Your task to perform on an android device: Go to Android settings Image 0: 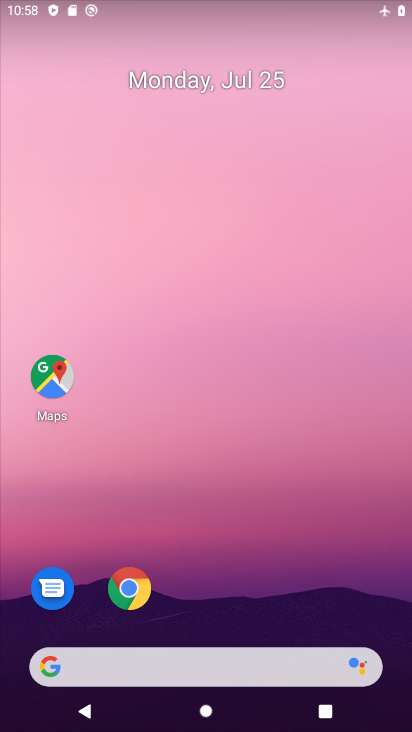
Step 0: drag from (247, 309) to (251, 194)
Your task to perform on an android device: Go to Android settings Image 1: 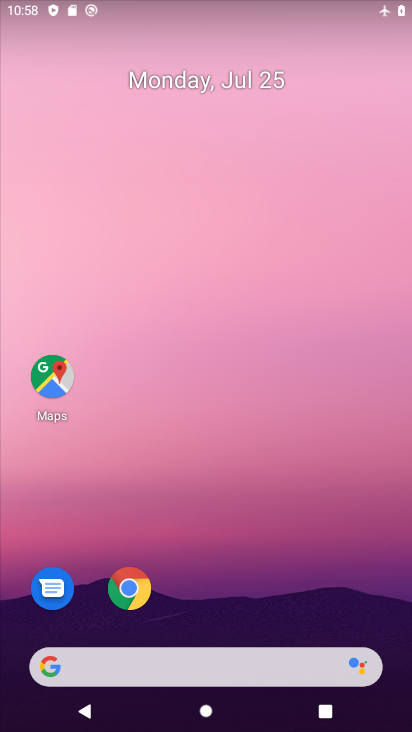
Step 1: click (199, 195)
Your task to perform on an android device: Go to Android settings Image 2: 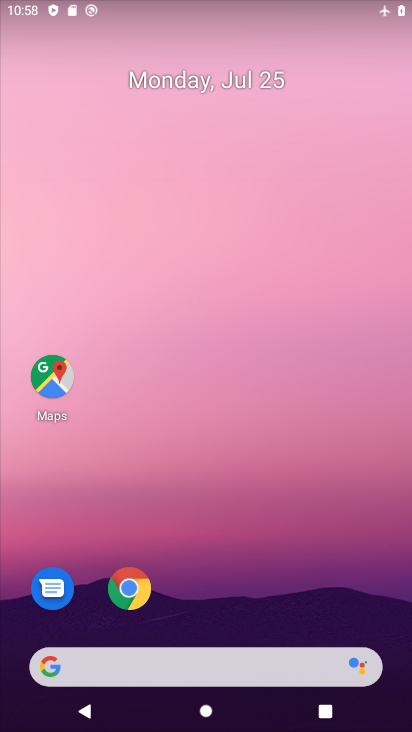
Step 2: drag from (191, 410) to (235, 218)
Your task to perform on an android device: Go to Android settings Image 3: 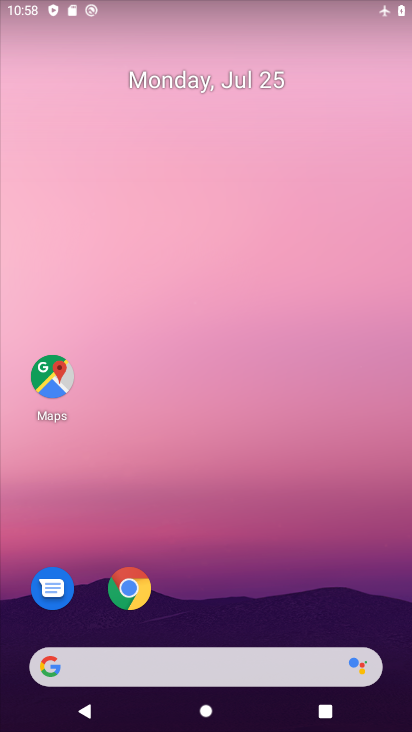
Step 3: drag from (191, 616) to (195, 184)
Your task to perform on an android device: Go to Android settings Image 4: 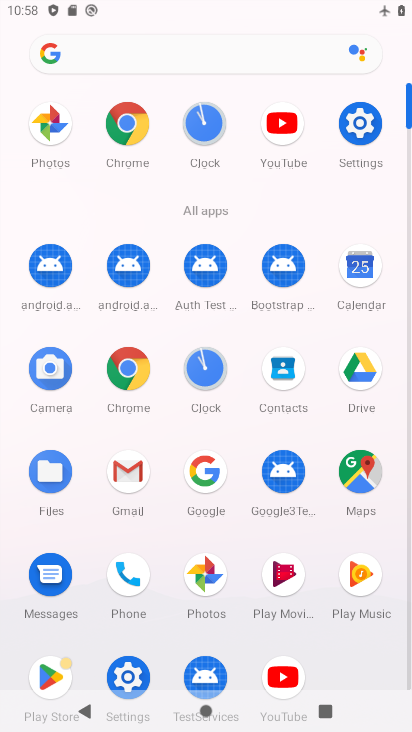
Step 4: click (363, 141)
Your task to perform on an android device: Go to Android settings Image 5: 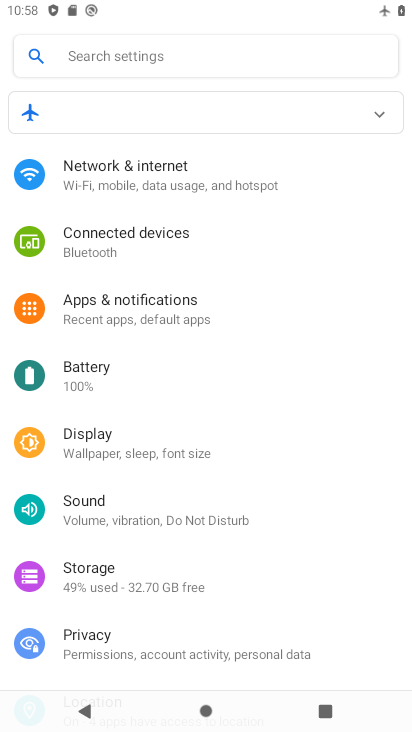
Step 5: drag from (191, 476) to (204, 161)
Your task to perform on an android device: Go to Android settings Image 6: 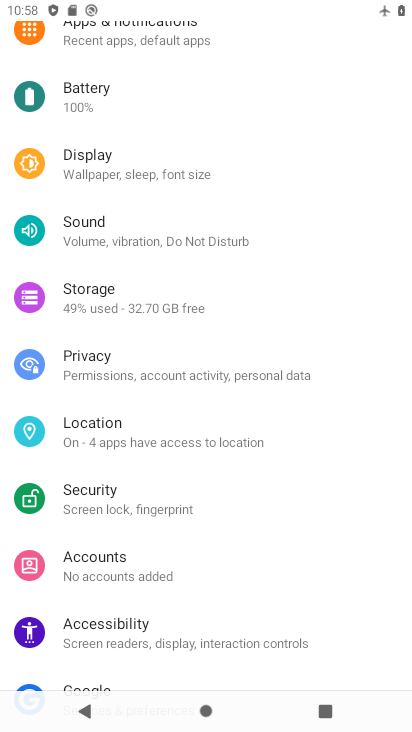
Step 6: drag from (89, 475) to (99, 297)
Your task to perform on an android device: Go to Android settings Image 7: 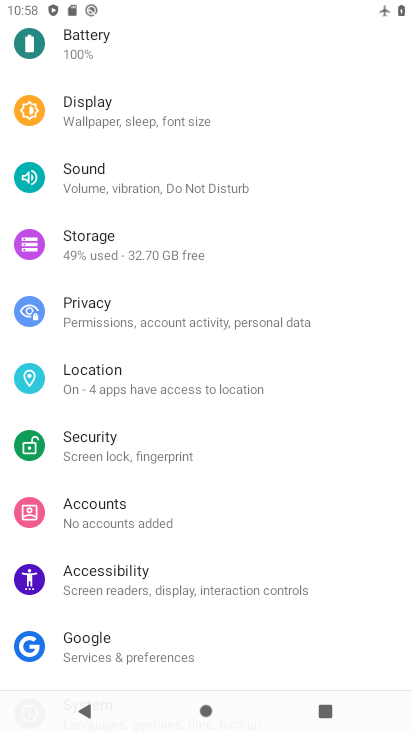
Step 7: drag from (110, 618) to (182, 156)
Your task to perform on an android device: Go to Android settings Image 8: 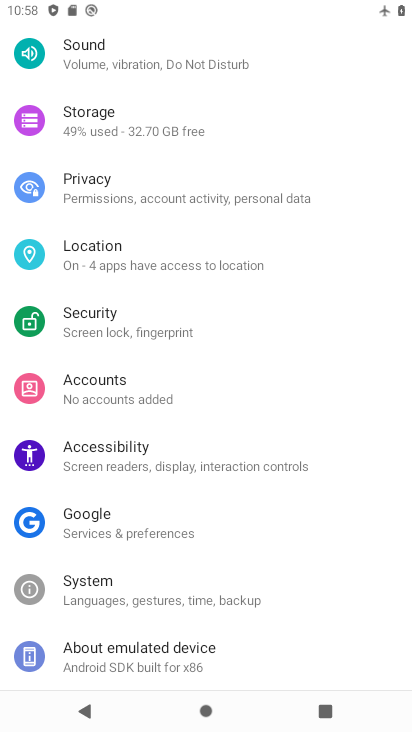
Step 8: click (129, 652)
Your task to perform on an android device: Go to Android settings Image 9: 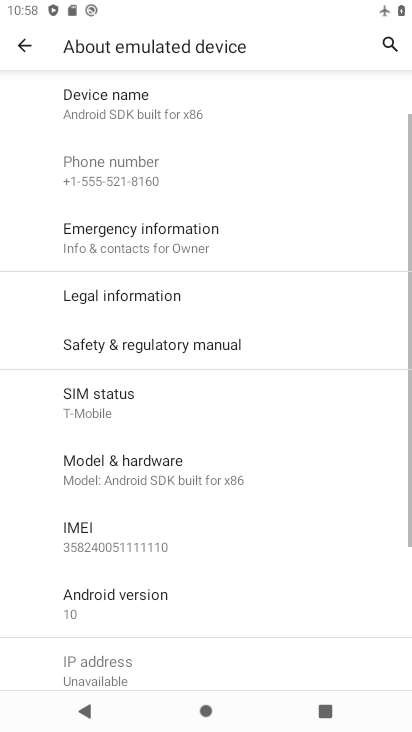
Step 9: click (130, 629)
Your task to perform on an android device: Go to Android settings Image 10: 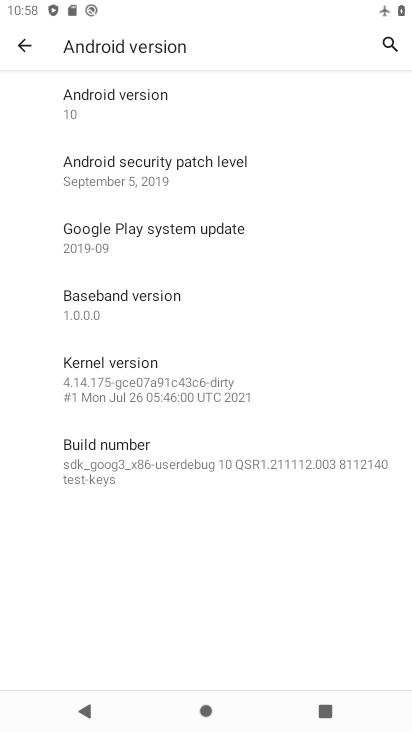
Step 10: task complete